Your task to perform on an android device: Open my contact list Image 0: 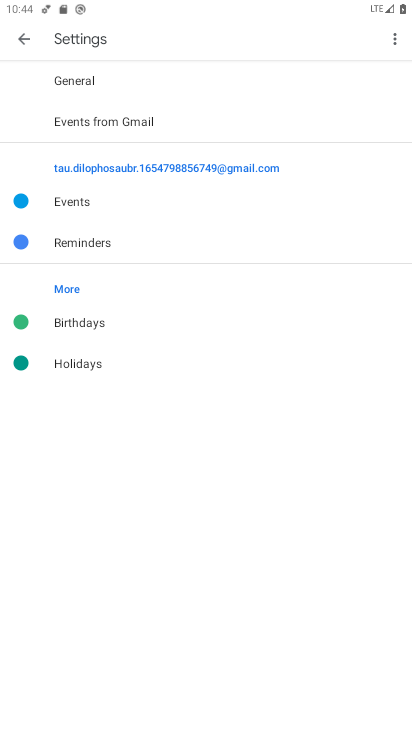
Step 0: press home button
Your task to perform on an android device: Open my contact list Image 1: 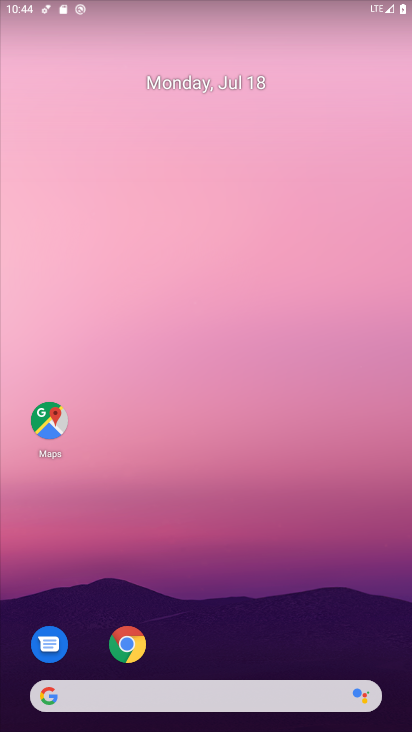
Step 1: drag from (360, 612) to (403, 185)
Your task to perform on an android device: Open my contact list Image 2: 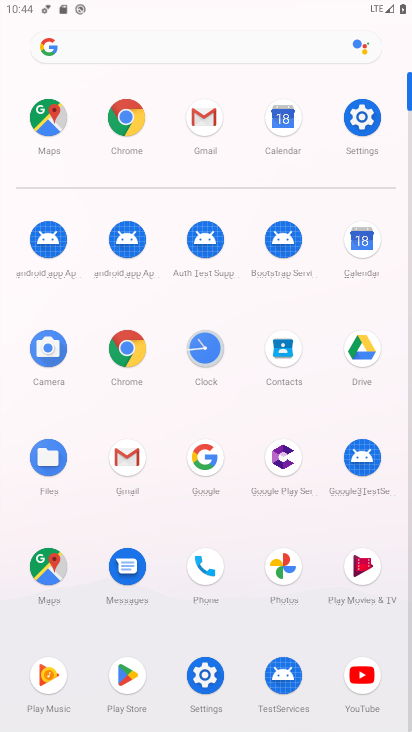
Step 2: click (282, 361)
Your task to perform on an android device: Open my contact list Image 3: 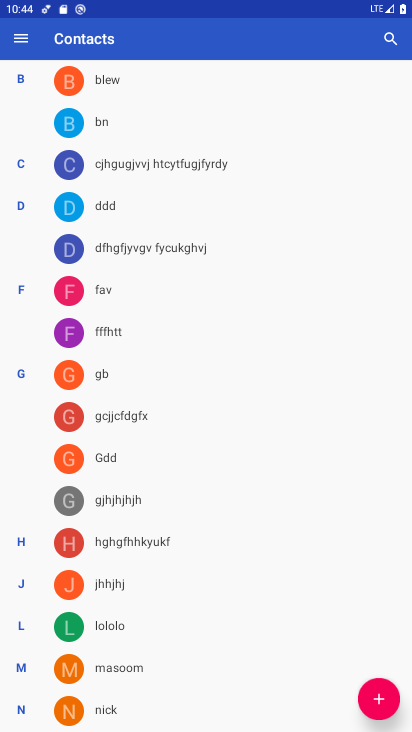
Step 3: task complete